Your task to perform on an android device: Play the last video I watched on Youtube Image 0: 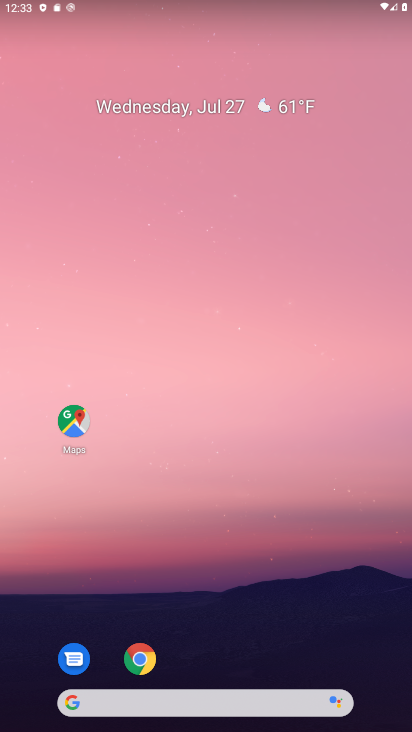
Step 0: drag from (204, 656) to (382, 17)
Your task to perform on an android device: Play the last video I watched on Youtube Image 1: 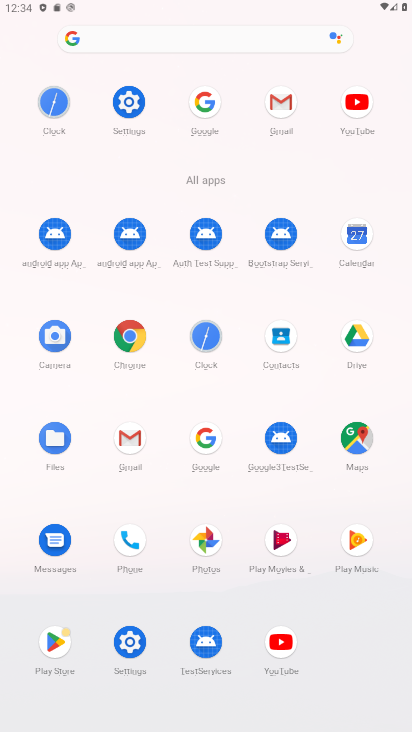
Step 1: click (281, 645)
Your task to perform on an android device: Play the last video I watched on Youtube Image 2: 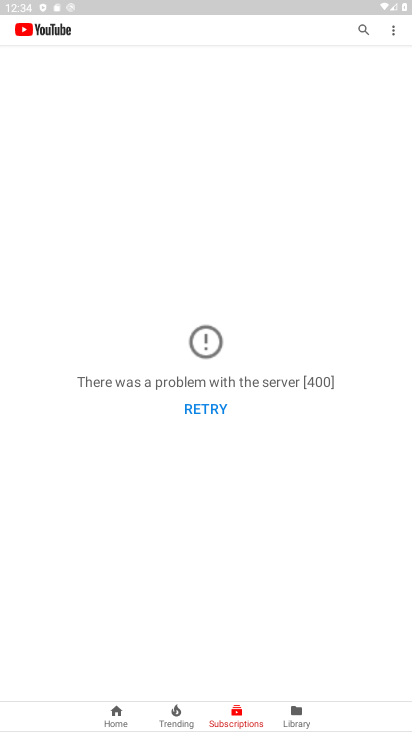
Step 2: click (298, 710)
Your task to perform on an android device: Play the last video I watched on Youtube Image 3: 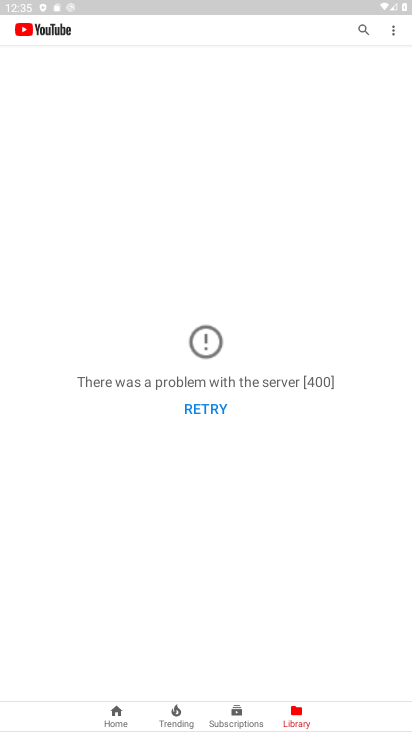
Step 3: task complete